Your task to perform on an android device: Search for razer blade on walmart, select the first entry, and add it to the cart. Image 0: 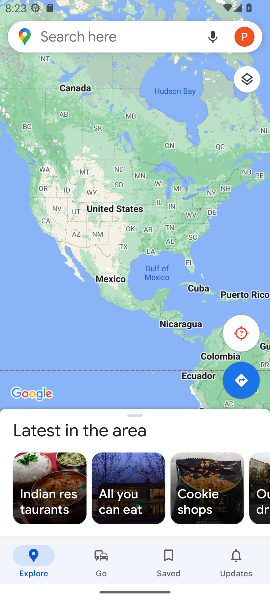
Step 0: press home button
Your task to perform on an android device: Search for razer blade on walmart, select the first entry, and add it to the cart. Image 1: 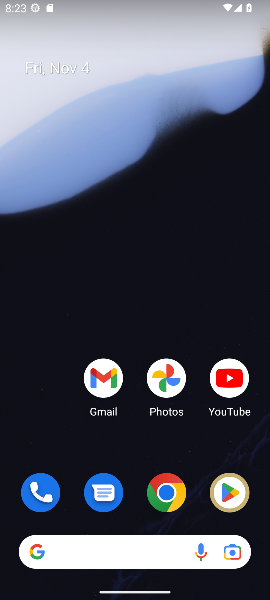
Step 1: drag from (129, 448) to (181, 100)
Your task to perform on an android device: Search for razer blade on walmart, select the first entry, and add it to the cart. Image 2: 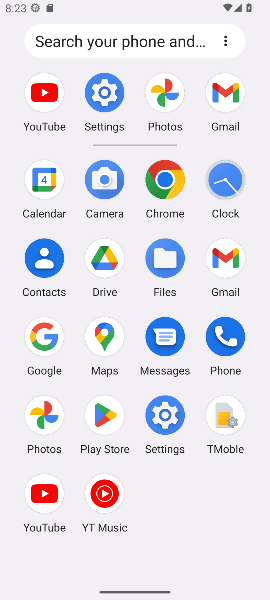
Step 2: click (169, 179)
Your task to perform on an android device: Search for razer blade on walmart, select the first entry, and add it to the cart. Image 3: 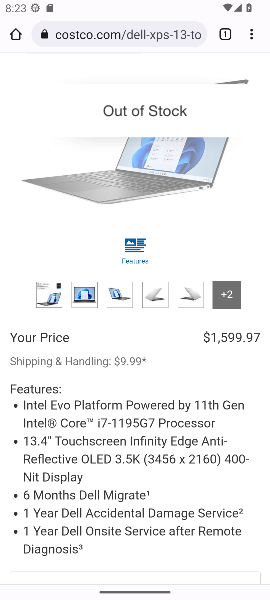
Step 3: click (149, 27)
Your task to perform on an android device: Search for razer blade on walmart, select the first entry, and add it to the cart. Image 4: 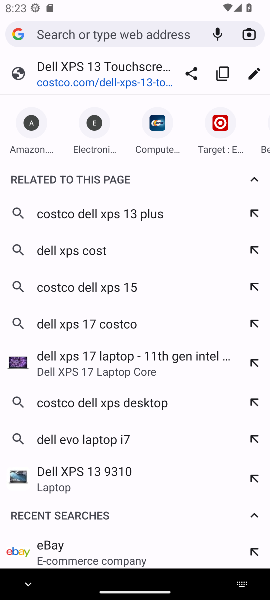
Step 4: type "walmart.com"
Your task to perform on an android device: Search for razer blade on walmart, select the first entry, and add it to the cart. Image 5: 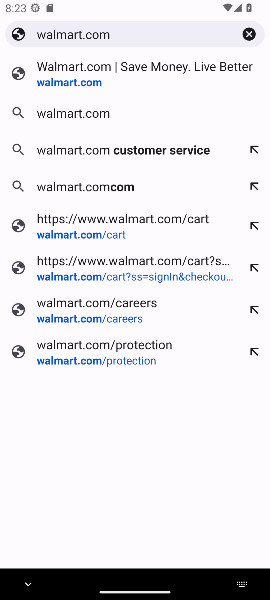
Step 5: press enter
Your task to perform on an android device: Search for razer blade on walmart, select the first entry, and add it to the cart. Image 6: 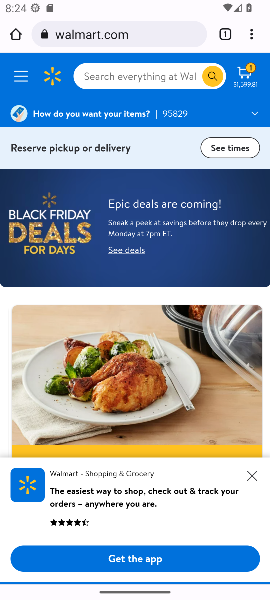
Step 6: click (164, 76)
Your task to perform on an android device: Search for razer blade on walmart, select the first entry, and add it to the cart. Image 7: 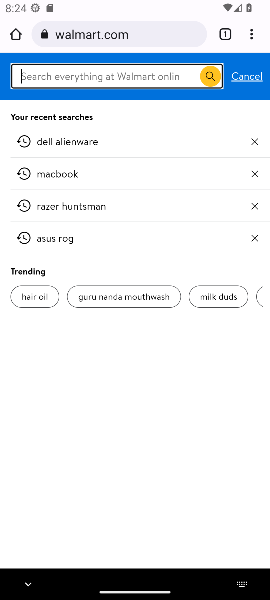
Step 7: type "razer blade"
Your task to perform on an android device: Search for razer blade on walmart, select the first entry, and add it to the cart. Image 8: 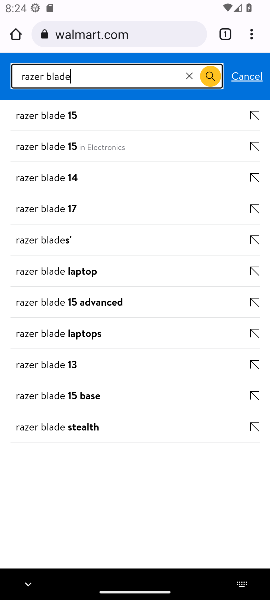
Step 8: press enter
Your task to perform on an android device: Search for razer blade on walmart, select the first entry, and add it to the cart. Image 9: 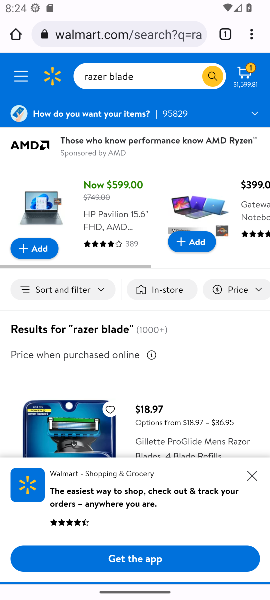
Step 9: drag from (193, 370) to (205, 133)
Your task to perform on an android device: Search for razer blade on walmart, select the first entry, and add it to the cart. Image 10: 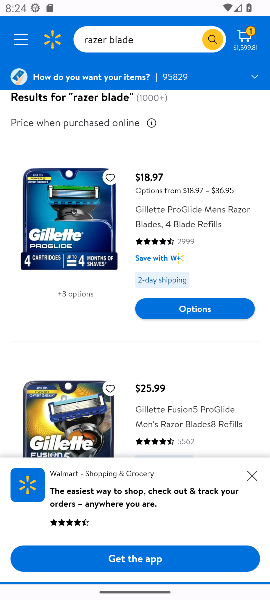
Step 10: click (101, 218)
Your task to perform on an android device: Search for razer blade on walmart, select the first entry, and add it to the cart. Image 11: 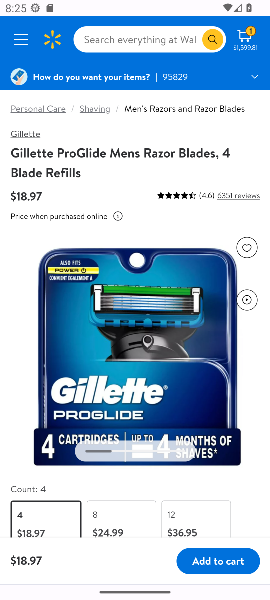
Step 11: click (224, 566)
Your task to perform on an android device: Search for razer blade on walmart, select the first entry, and add it to the cart. Image 12: 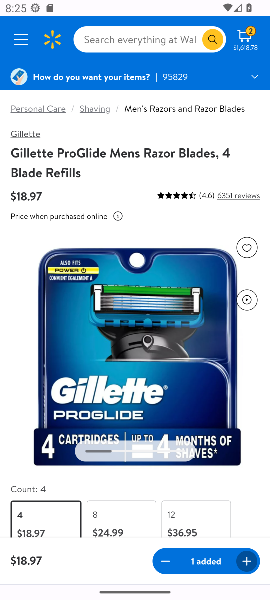
Step 12: task complete